Your task to perform on an android device: Open maps Image 0: 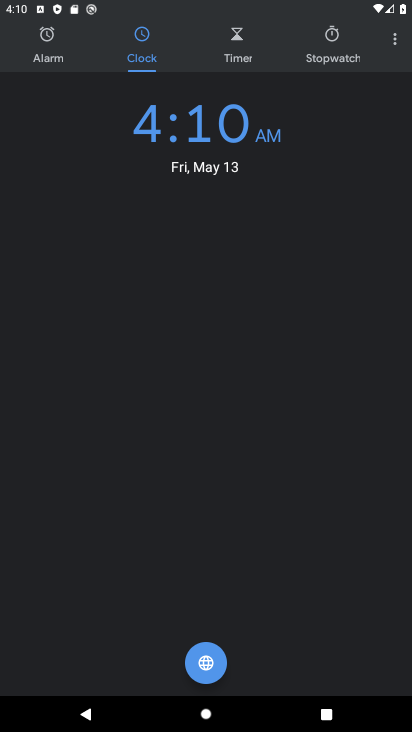
Step 0: press home button
Your task to perform on an android device: Open maps Image 1: 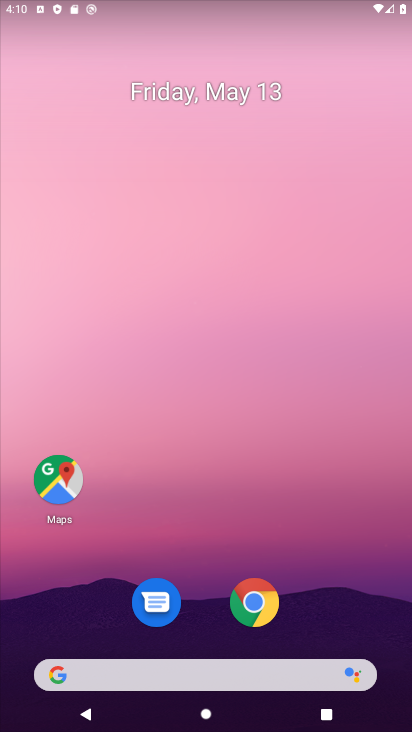
Step 1: click (46, 481)
Your task to perform on an android device: Open maps Image 2: 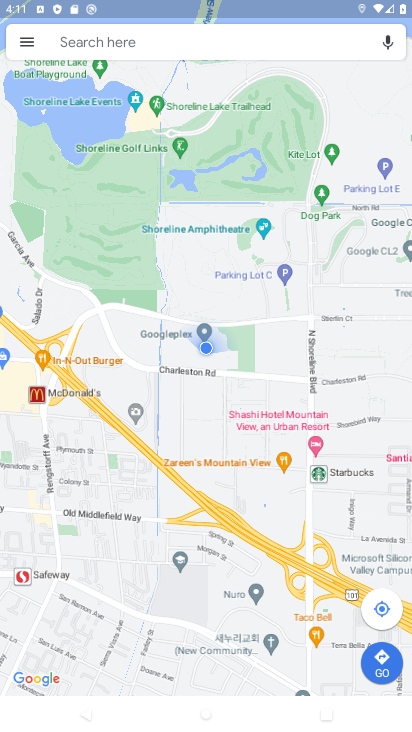
Step 2: task complete